Your task to perform on an android device: add a contact Image 0: 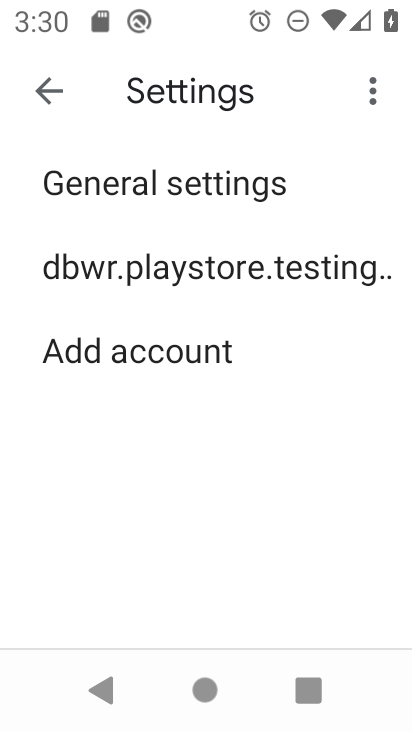
Step 0: press home button
Your task to perform on an android device: add a contact Image 1: 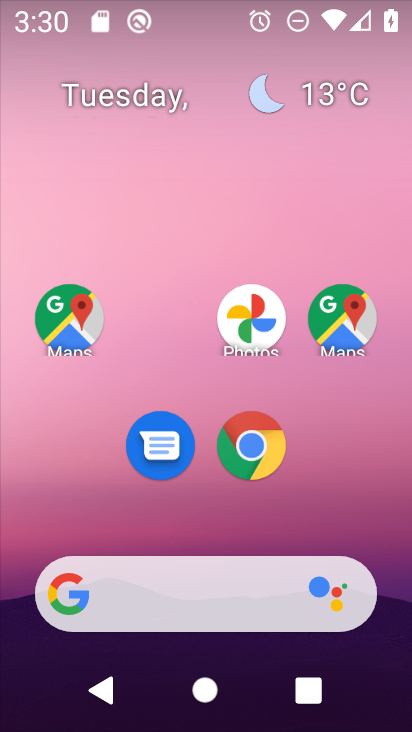
Step 1: drag from (388, 558) to (381, 211)
Your task to perform on an android device: add a contact Image 2: 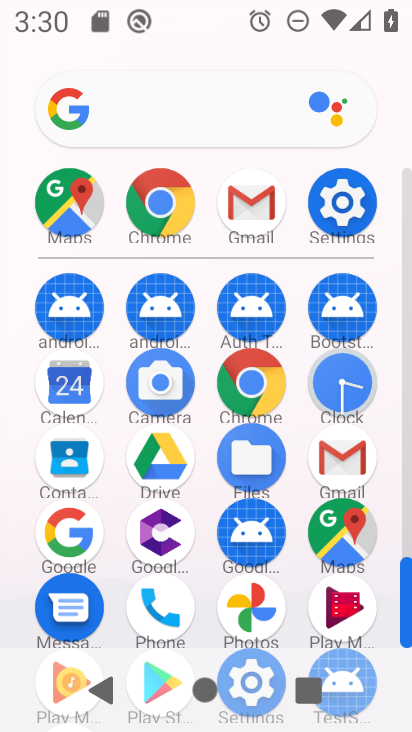
Step 2: click (75, 476)
Your task to perform on an android device: add a contact Image 3: 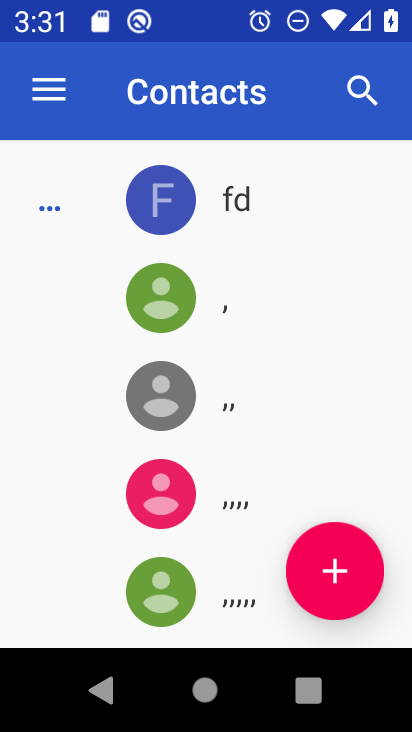
Step 3: click (344, 598)
Your task to perform on an android device: add a contact Image 4: 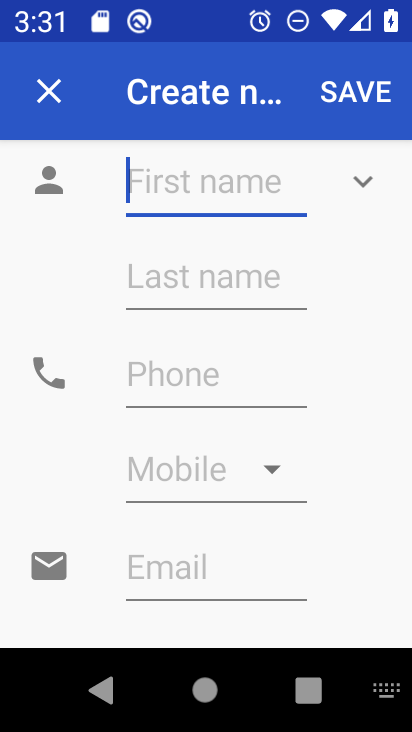
Step 4: click (164, 192)
Your task to perform on an android device: add a contact Image 5: 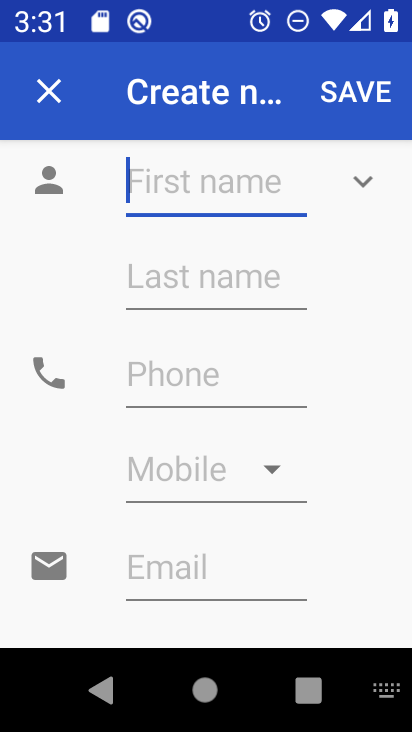
Step 5: type "orio"
Your task to perform on an android device: add a contact Image 6: 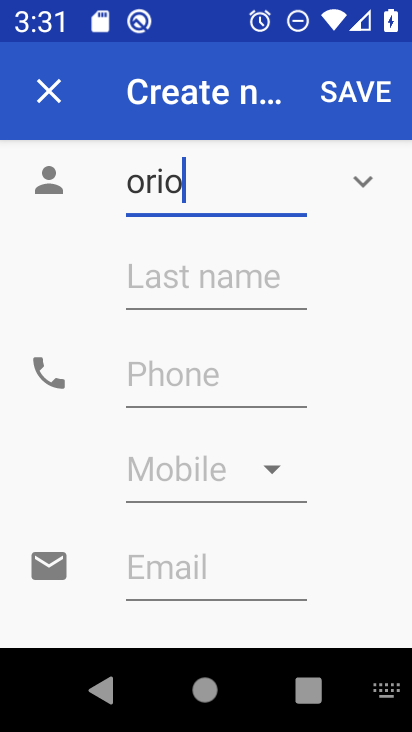
Step 6: click (259, 385)
Your task to perform on an android device: add a contact Image 7: 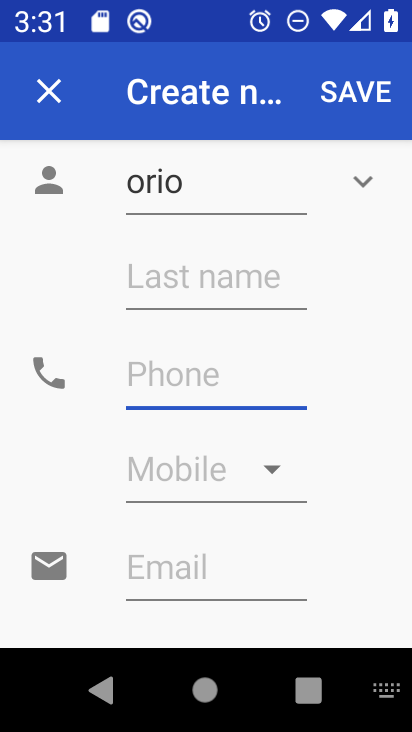
Step 7: type "1234567890"
Your task to perform on an android device: add a contact Image 8: 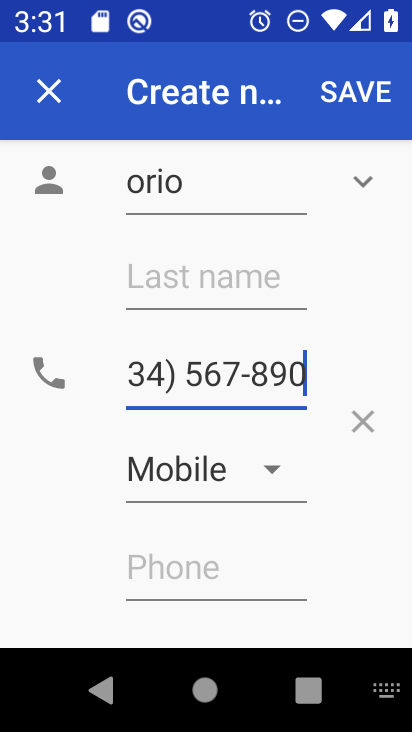
Step 8: click (370, 101)
Your task to perform on an android device: add a contact Image 9: 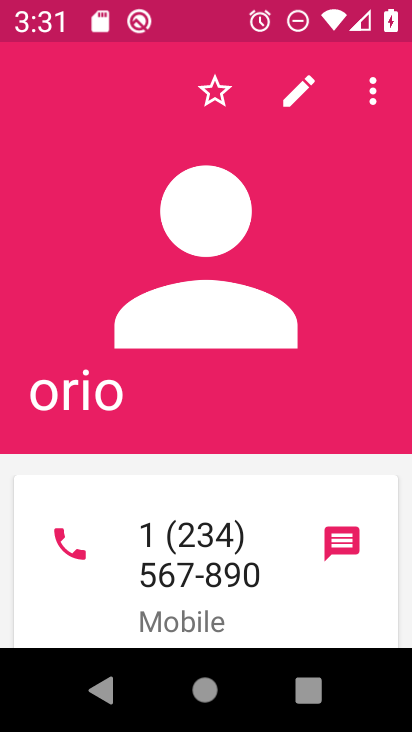
Step 9: task complete